Your task to perform on an android device: turn off translation in the chrome app Image 0: 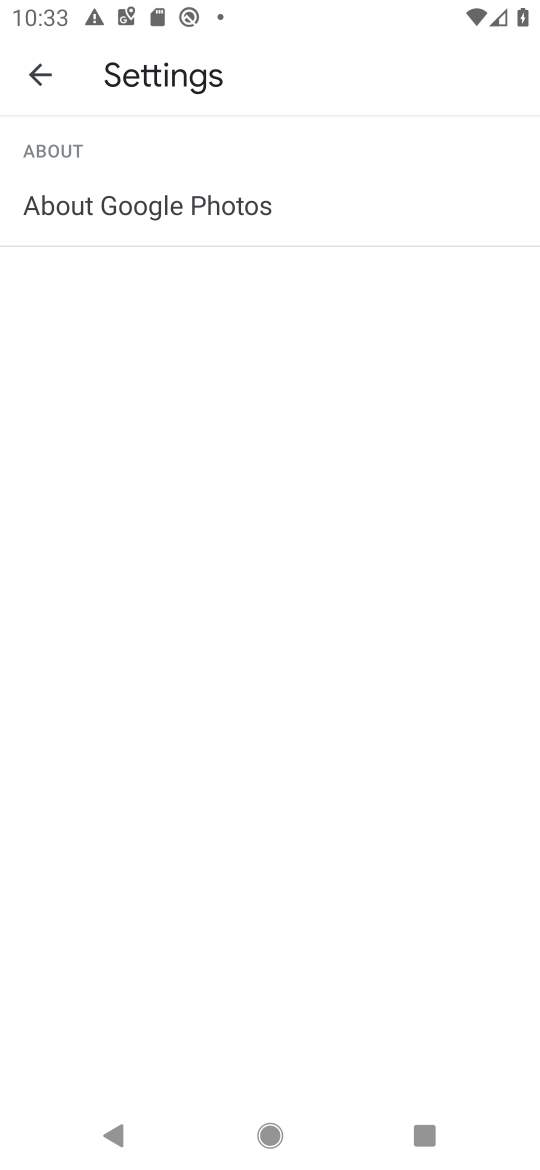
Step 0: press home button
Your task to perform on an android device: turn off translation in the chrome app Image 1: 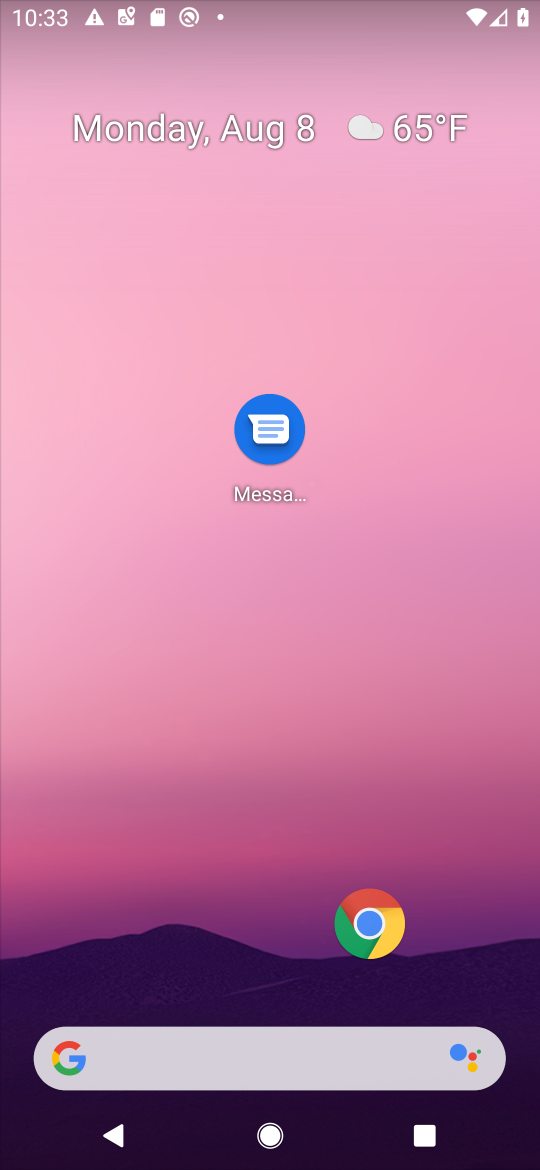
Step 1: click (376, 937)
Your task to perform on an android device: turn off translation in the chrome app Image 2: 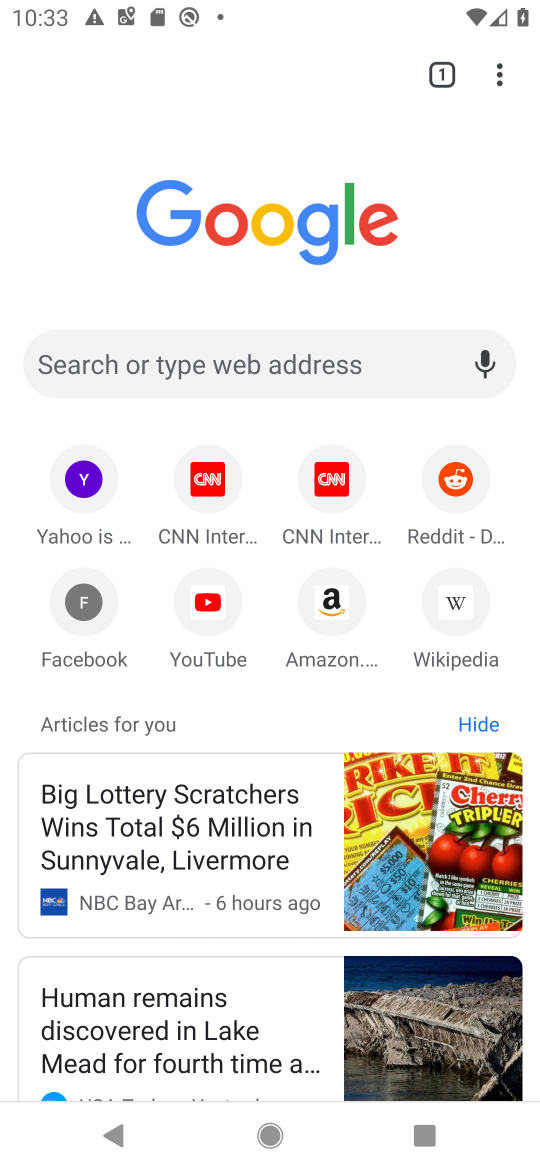
Step 2: click (509, 72)
Your task to perform on an android device: turn off translation in the chrome app Image 3: 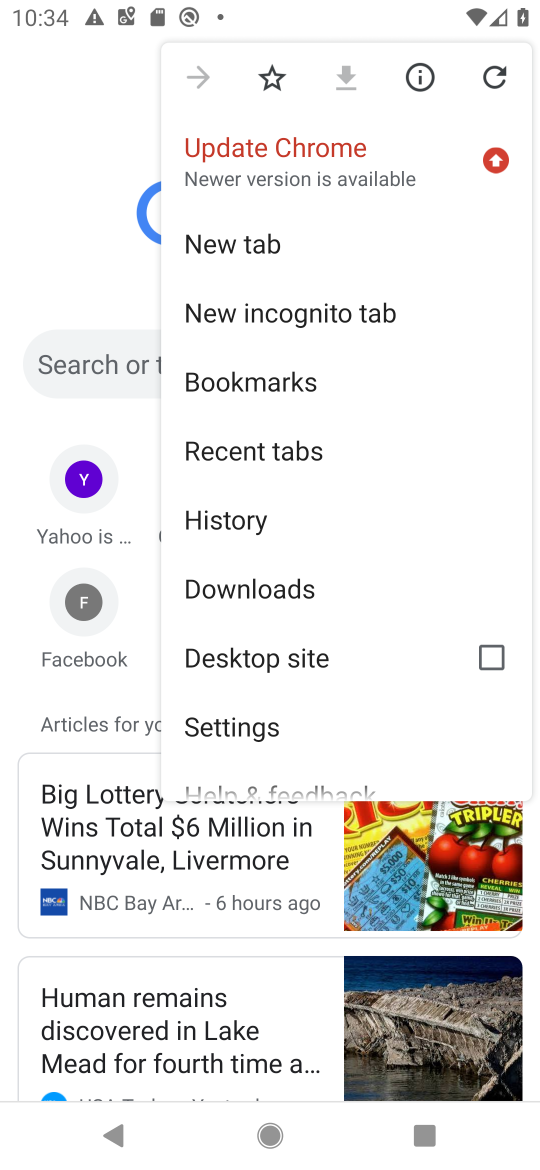
Step 3: click (244, 727)
Your task to perform on an android device: turn off translation in the chrome app Image 4: 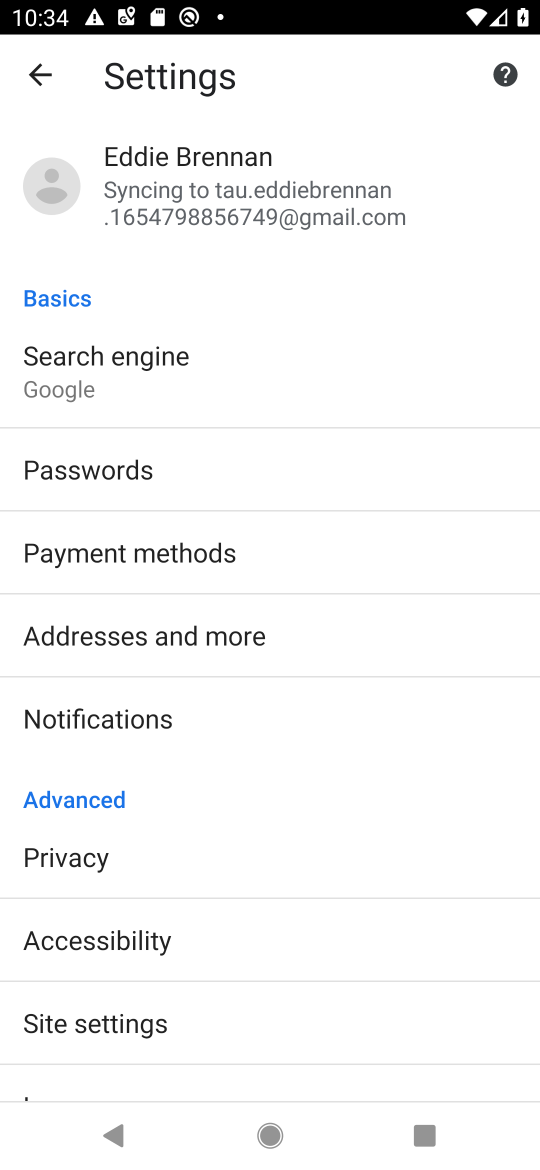
Step 4: drag from (334, 1035) to (352, 410)
Your task to perform on an android device: turn off translation in the chrome app Image 5: 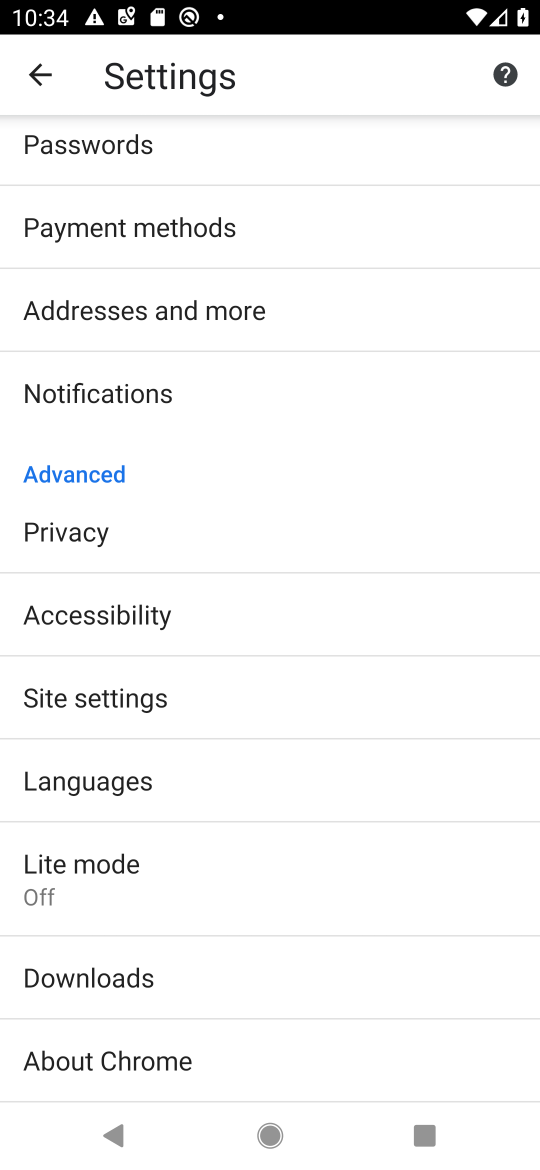
Step 5: click (121, 788)
Your task to perform on an android device: turn off translation in the chrome app Image 6: 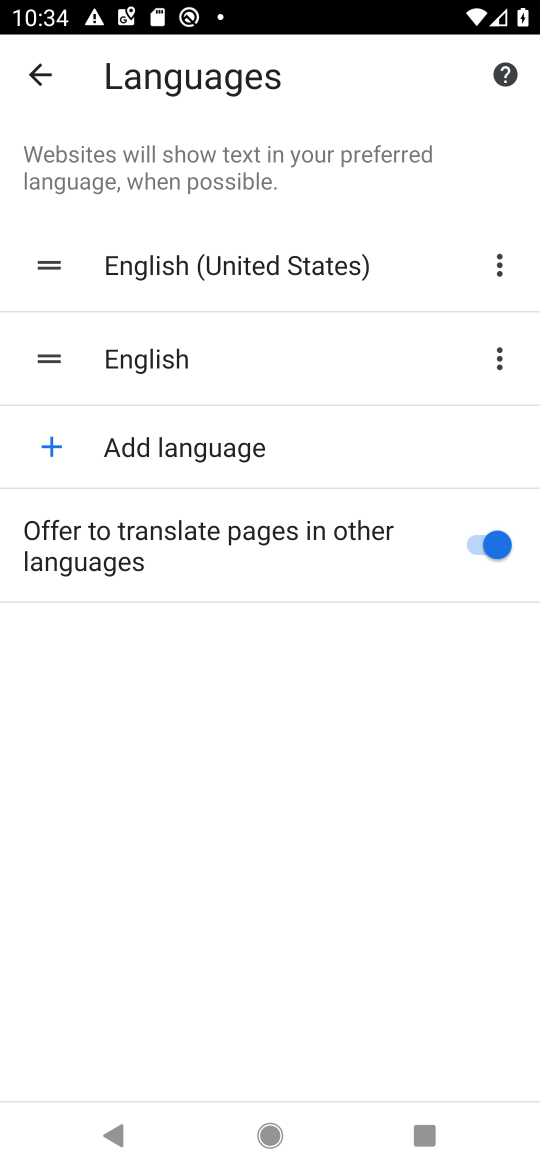
Step 6: task complete